Your task to perform on an android device: open chrome privacy settings Image 0: 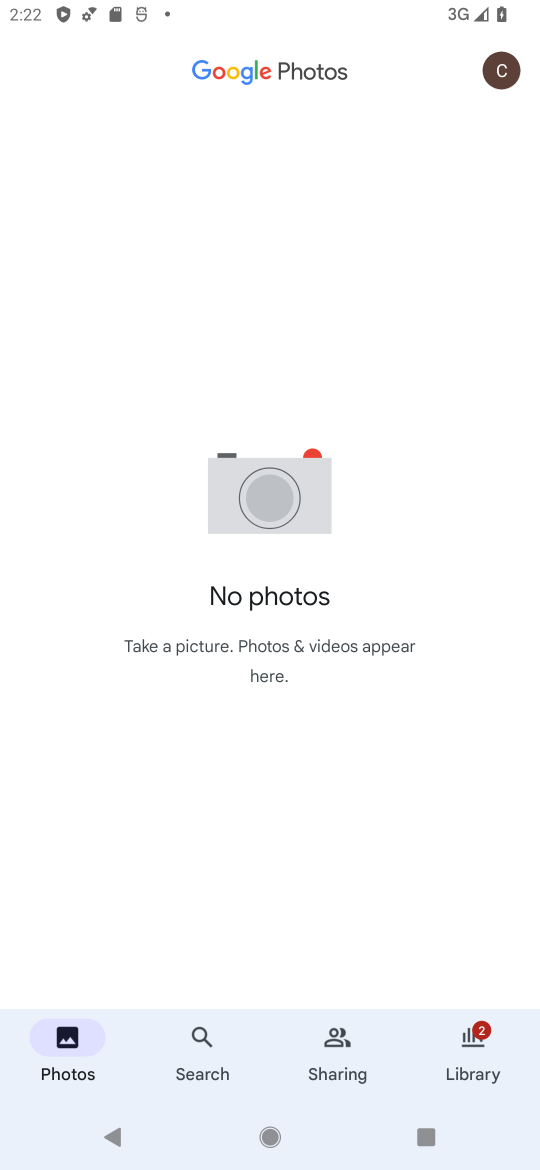
Step 0: press home button
Your task to perform on an android device: open chrome privacy settings Image 1: 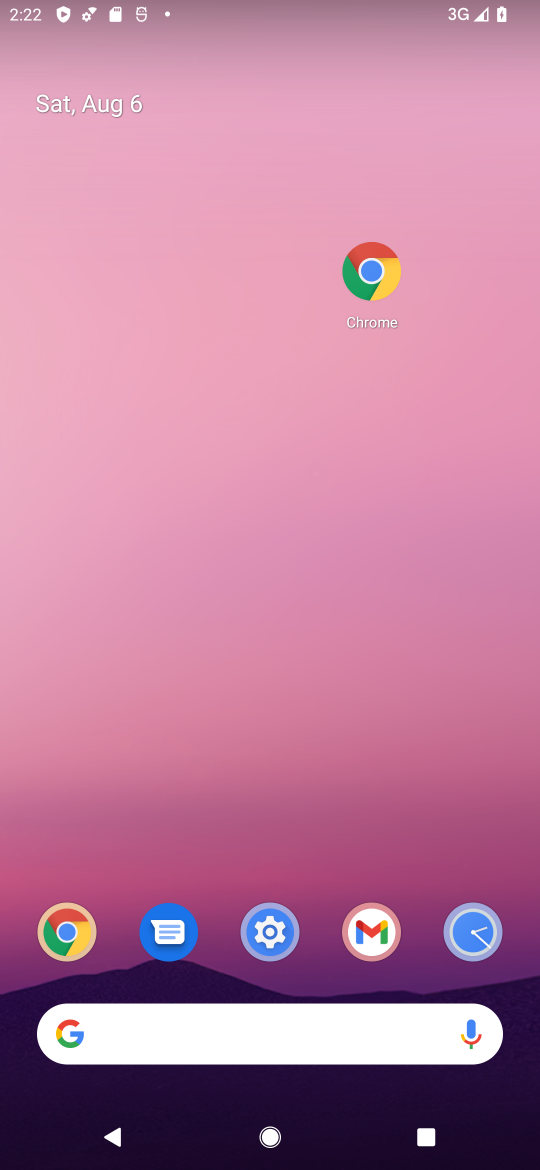
Step 1: drag from (288, 897) to (157, 117)
Your task to perform on an android device: open chrome privacy settings Image 2: 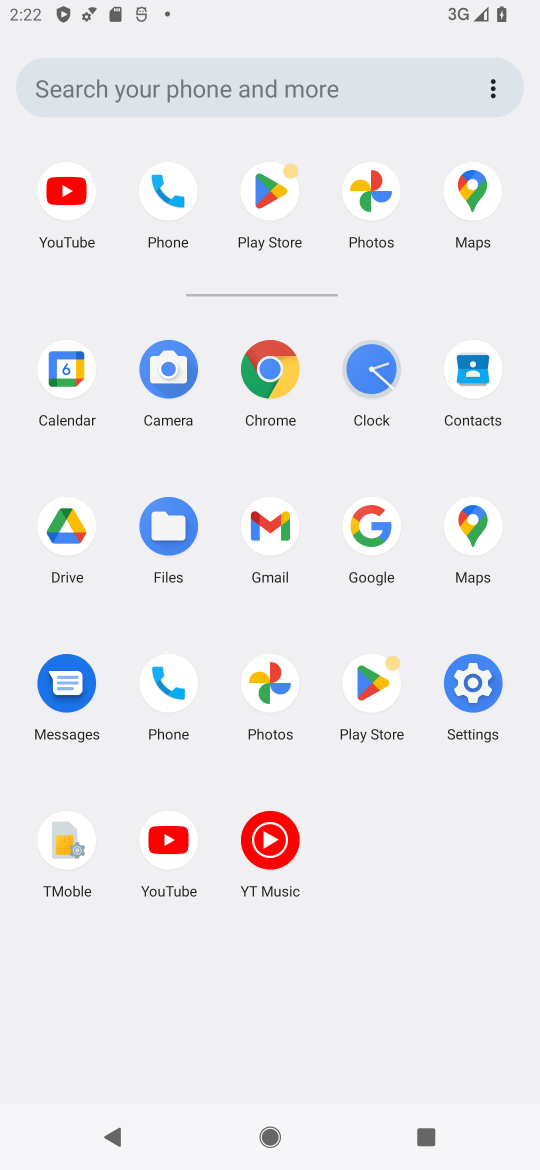
Step 2: click (474, 685)
Your task to perform on an android device: open chrome privacy settings Image 3: 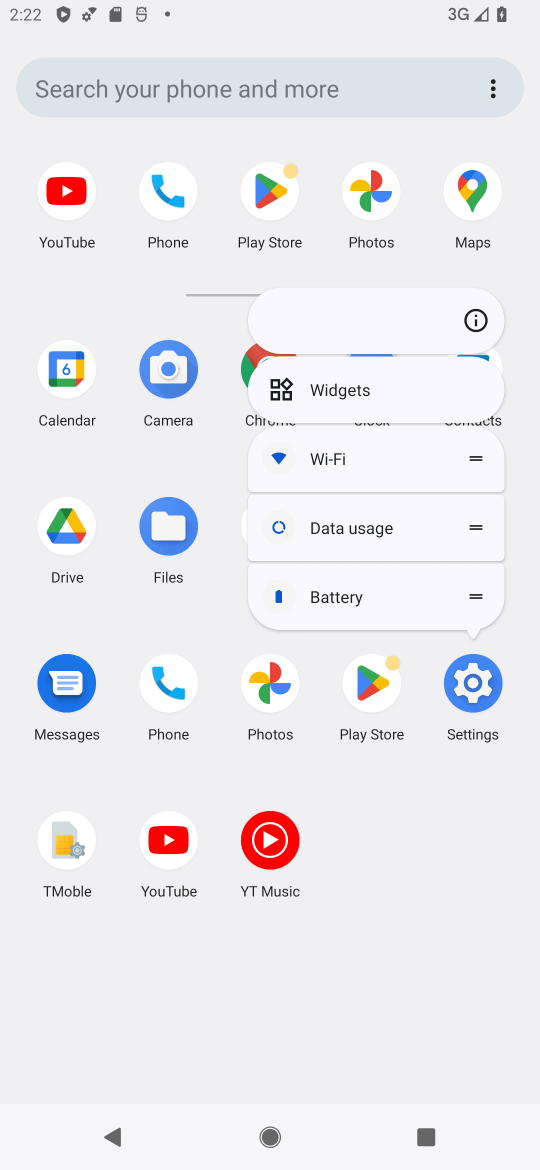
Step 3: click (462, 683)
Your task to perform on an android device: open chrome privacy settings Image 4: 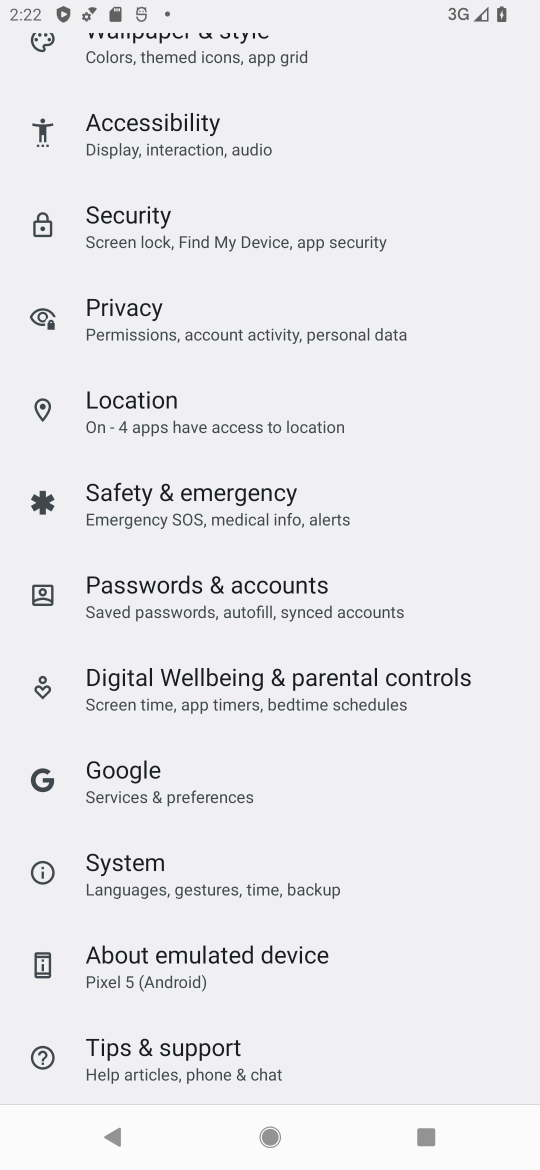
Step 4: click (76, 325)
Your task to perform on an android device: open chrome privacy settings Image 5: 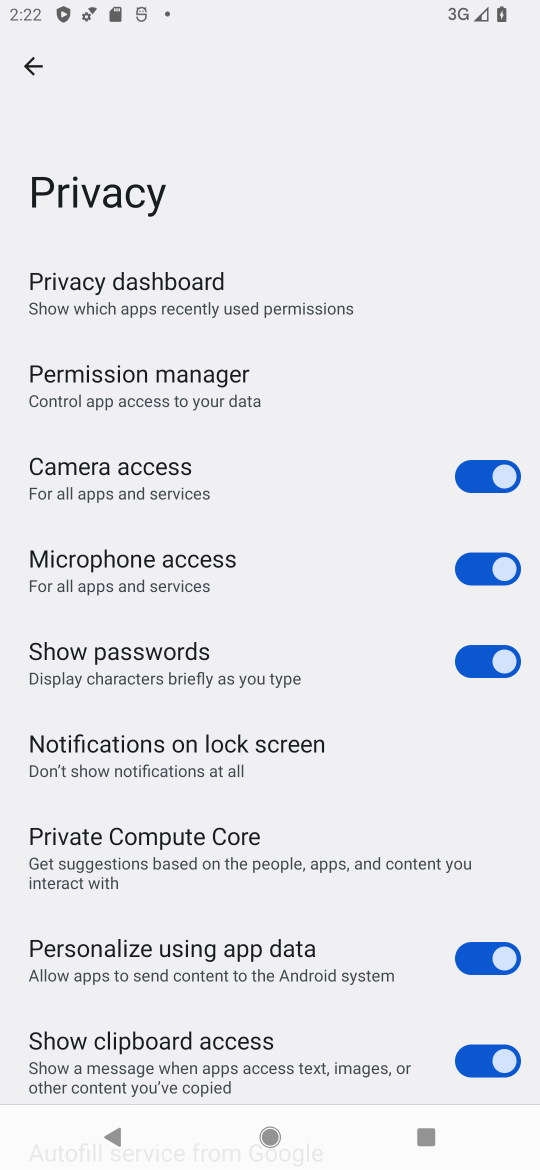
Step 5: task complete